Your task to perform on an android device: turn on bluetooth scan Image 0: 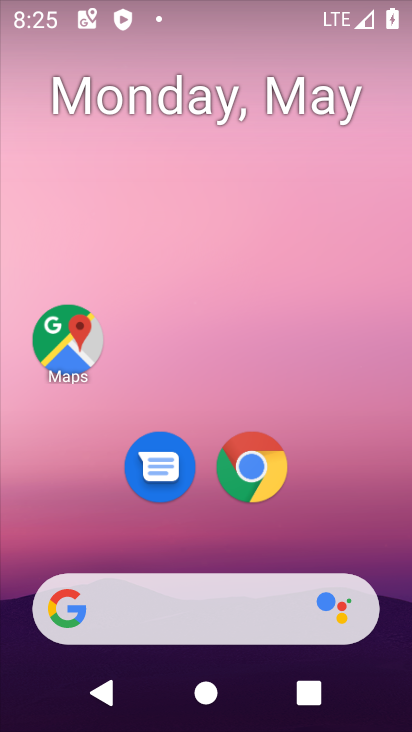
Step 0: drag from (333, 520) to (275, 63)
Your task to perform on an android device: turn on bluetooth scan Image 1: 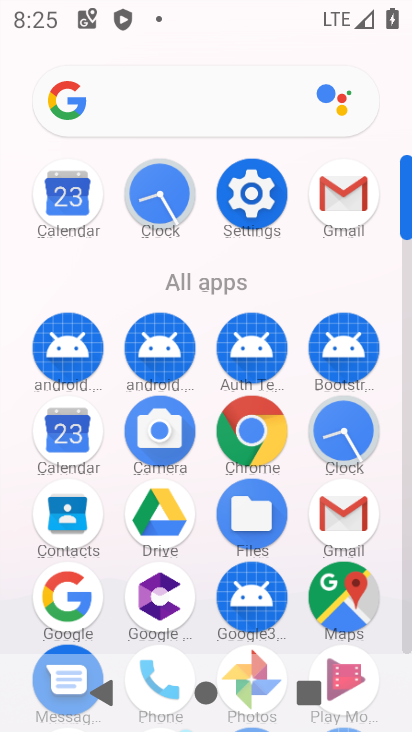
Step 1: click (257, 212)
Your task to perform on an android device: turn on bluetooth scan Image 2: 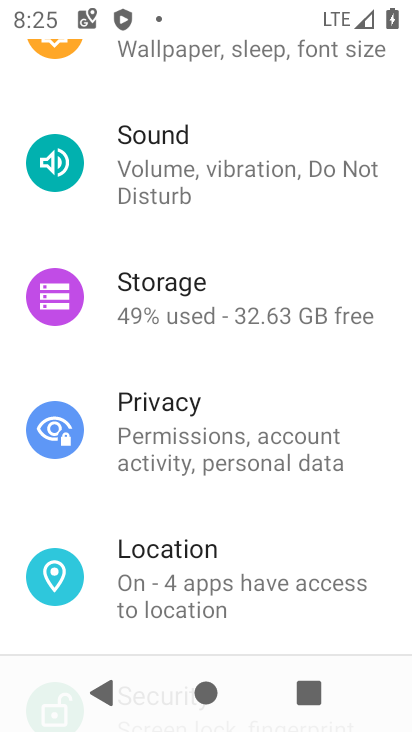
Step 2: click (251, 576)
Your task to perform on an android device: turn on bluetooth scan Image 3: 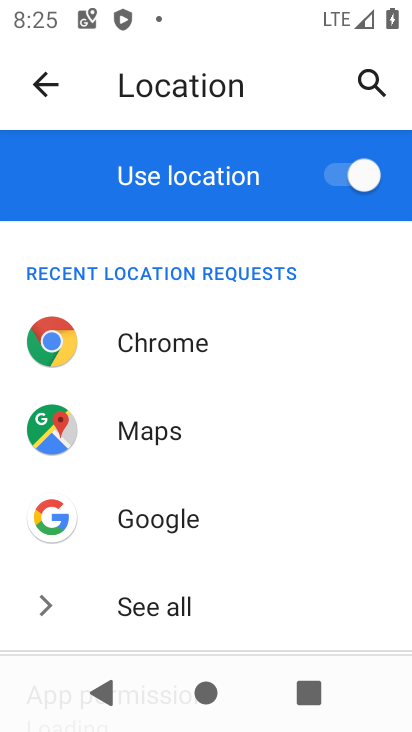
Step 3: drag from (277, 586) to (256, 240)
Your task to perform on an android device: turn on bluetooth scan Image 4: 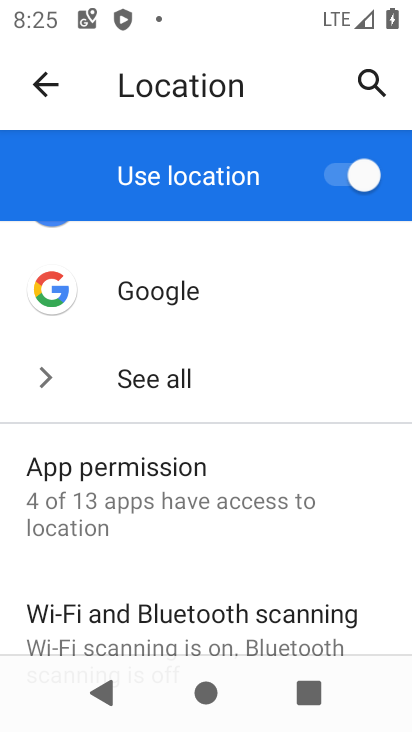
Step 4: click (277, 609)
Your task to perform on an android device: turn on bluetooth scan Image 5: 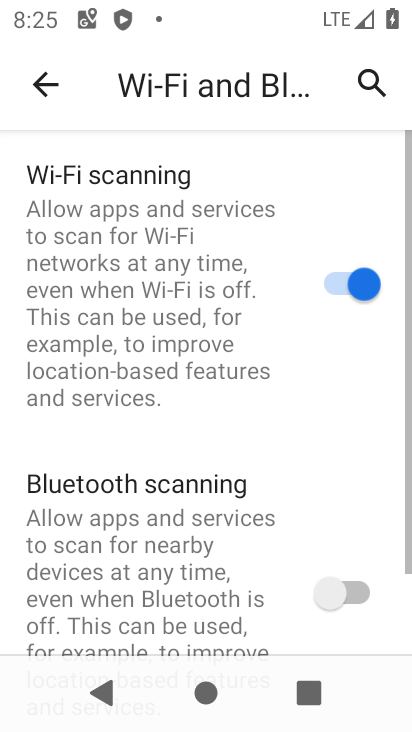
Step 5: click (347, 586)
Your task to perform on an android device: turn on bluetooth scan Image 6: 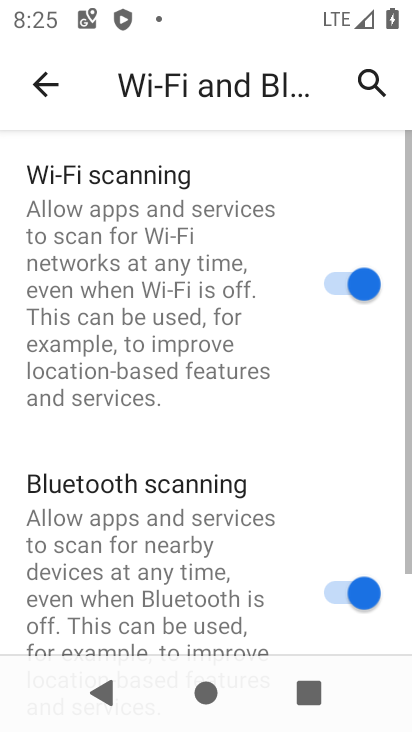
Step 6: task complete